Your task to perform on an android device: change text size in settings app Image 0: 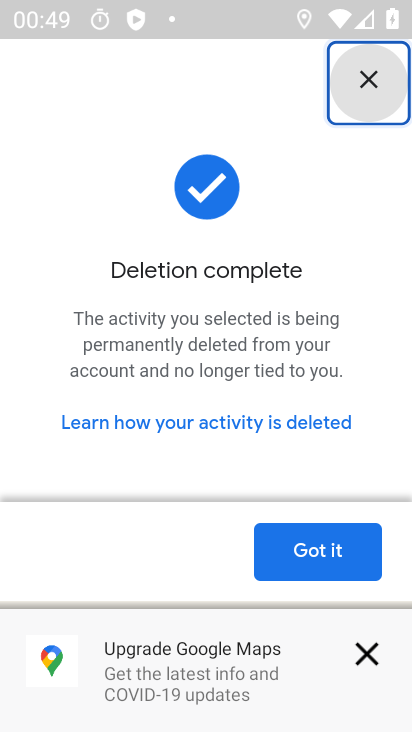
Step 0: press home button
Your task to perform on an android device: change text size in settings app Image 1: 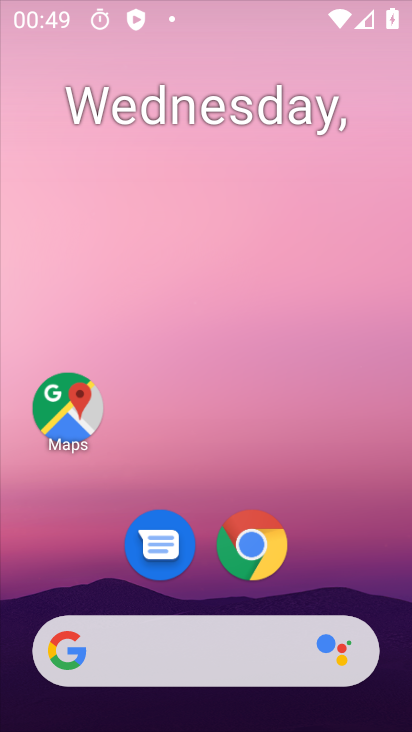
Step 1: drag from (316, 487) to (301, 106)
Your task to perform on an android device: change text size in settings app Image 2: 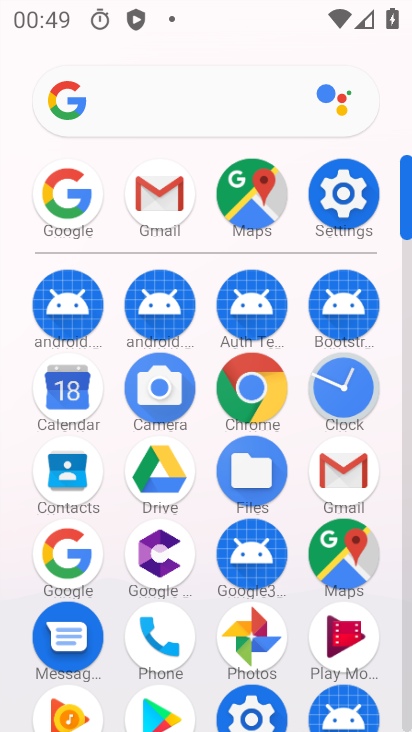
Step 2: click (344, 187)
Your task to perform on an android device: change text size in settings app Image 3: 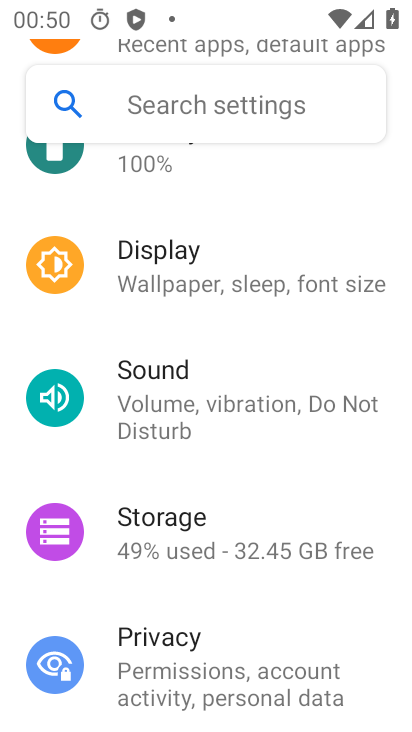
Step 3: click (225, 292)
Your task to perform on an android device: change text size in settings app Image 4: 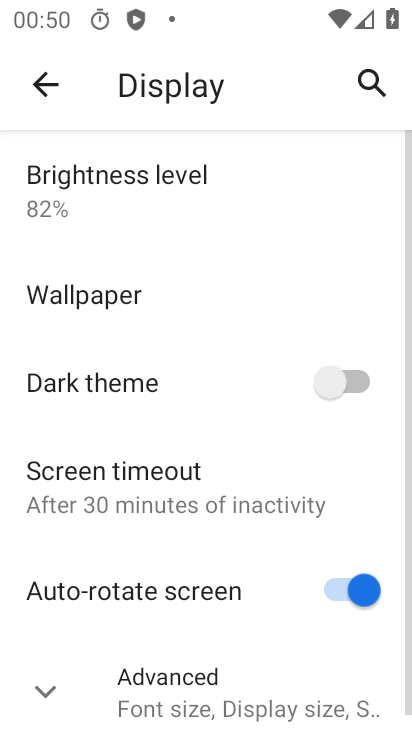
Step 4: drag from (200, 360) to (222, 243)
Your task to perform on an android device: change text size in settings app Image 5: 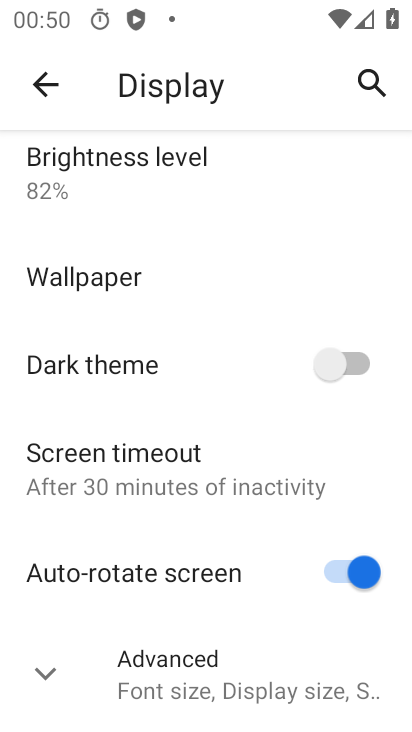
Step 5: click (133, 676)
Your task to perform on an android device: change text size in settings app Image 6: 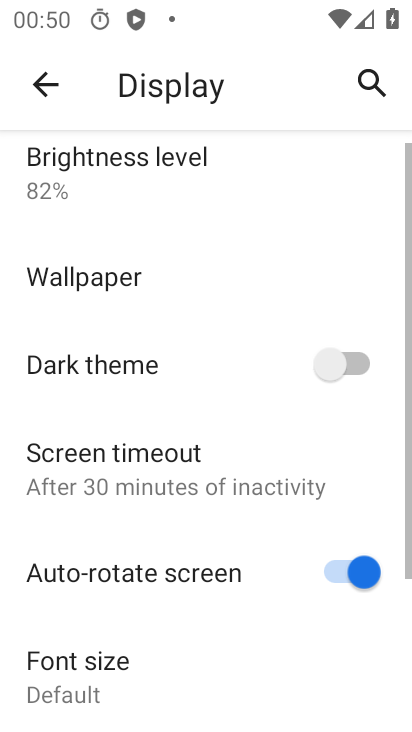
Step 6: drag from (189, 647) to (213, 304)
Your task to perform on an android device: change text size in settings app Image 7: 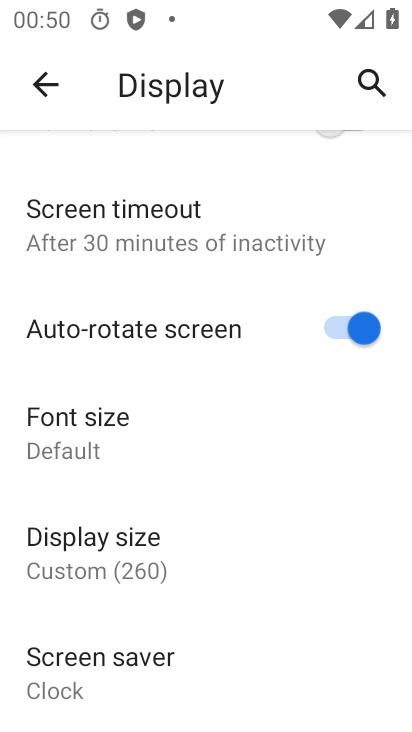
Step 7: click (89, 415)
Your task to perform on an android device: change text size in settings app Image 8: 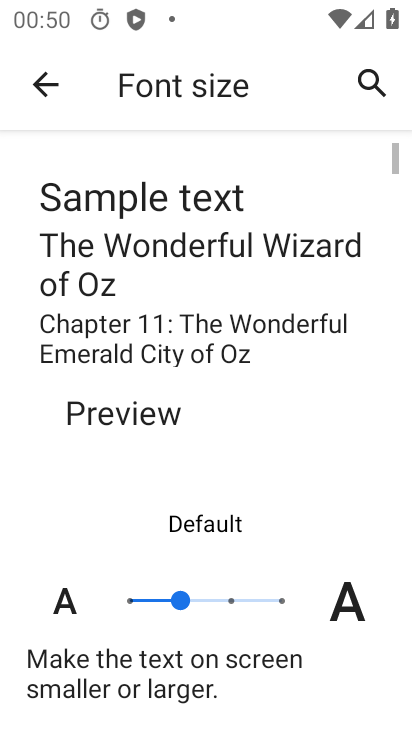
Step 8: click (122, 599)
Your task to perform on an android device: change text size in settings app Image 9: 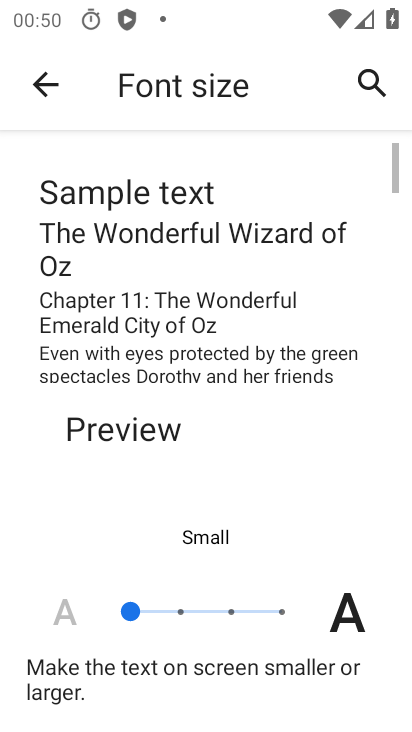
Step 9: task complete